Your task to perform on an android device: create a new album in the google photos Image 0: 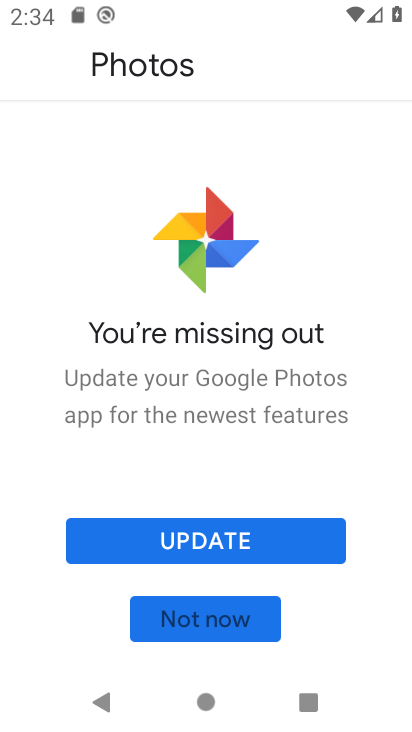
Step 0: press home button
Your task to perform on an android device: create a new album in the google photos Image 1: 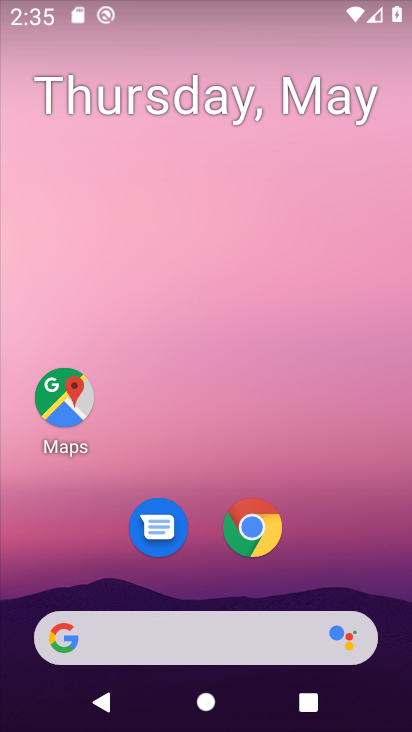
Step 1: drag from (404, 585) to (299, 9)
Your task to perform on an android device: create a new album in the google photos Image 2: 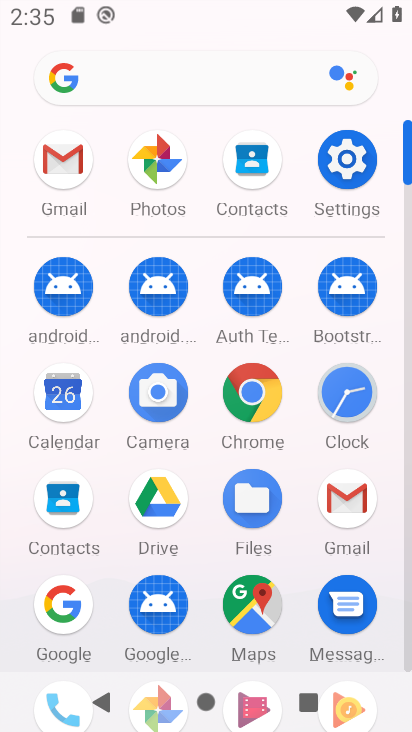
Step 2: click (409, 614)
Your task to perform on an android device: create a new album in the google photos Image 3: 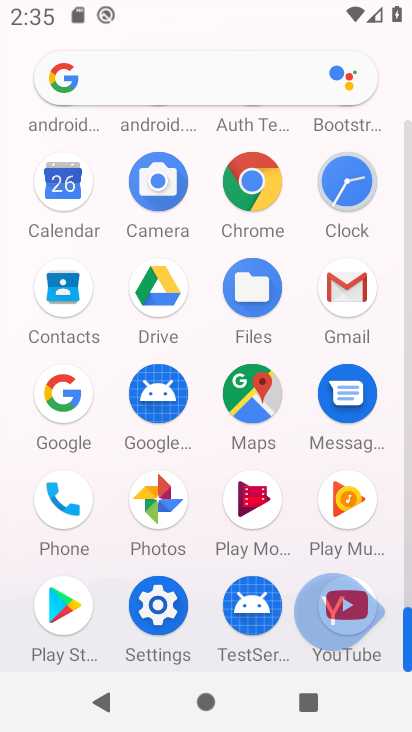
Step 3: click (409, 614)
Your task to perform on an android device: create a new album in the google photos Image 4: 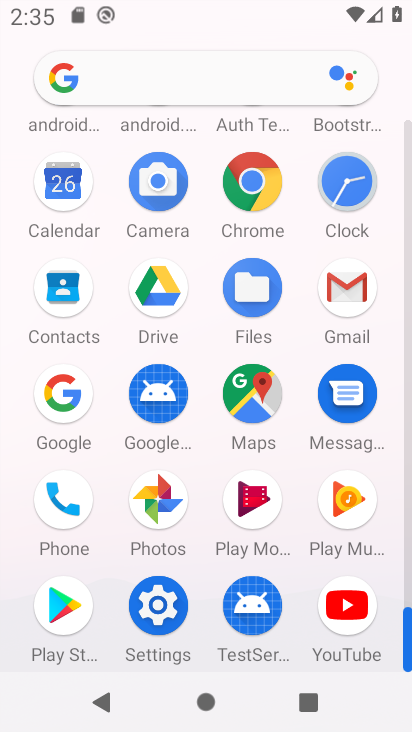
Step 4: click (409, 614)
Your task to perform on an android device: create a new album in the google photos Image 5: 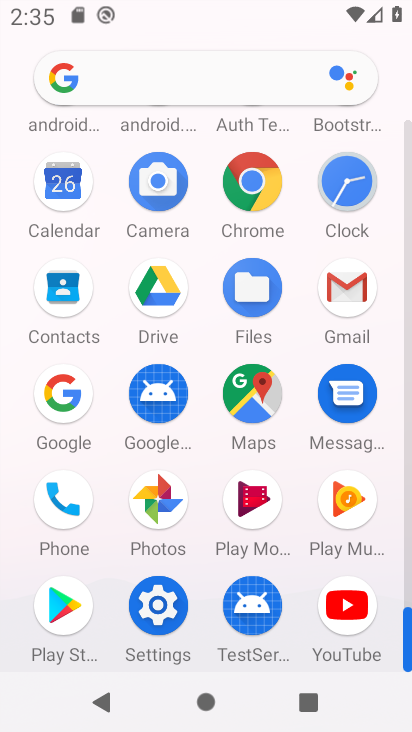
Step 5: click (155, 519)
Your task to perform on an android device: create a new album in the google photos Image 6: 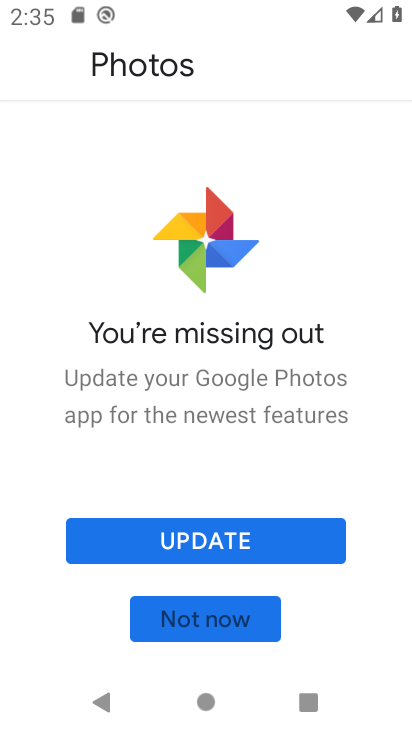
Step 6: click (155, 529)
Your task to perform on an android device: create a new album in the google photos Image 7: 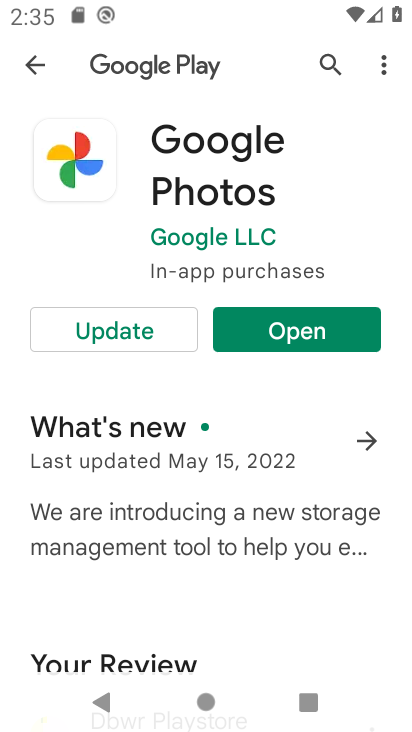
Step 7: click (129, 334)
Your task to perform on an android device: create a new album in the google photos Image 8: 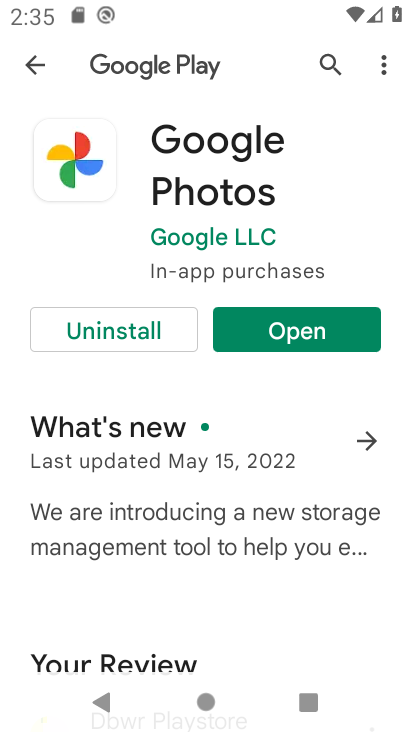
Step 8: click (330, 352)
Your task to perform on an android device: create a new album in the google photos Image 9: 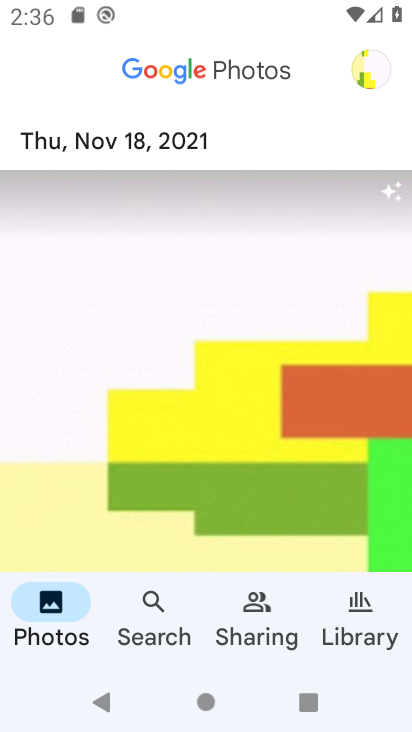
Step 9: click (345, 625)
Your task to perform on an android device: create a new album in the google photos Image 10: 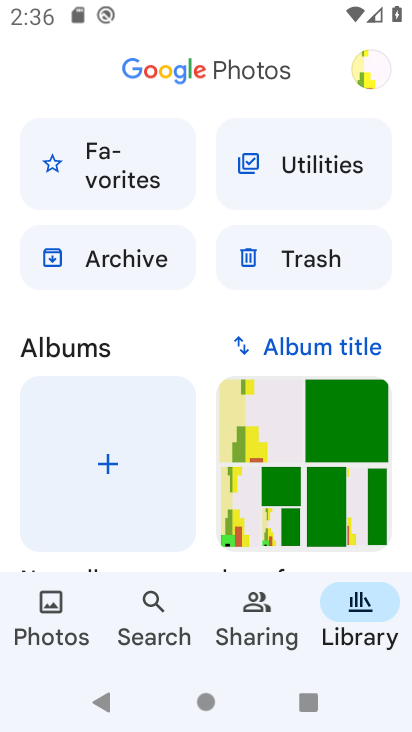
Step 10: click (50, 609)
Your task to perform on an android device: create a new album in the google photos Image 11: 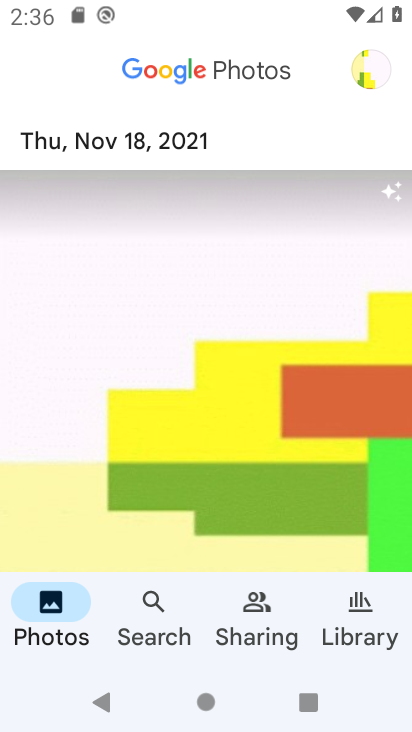
Step 11: click (136, 506)
Your task to perform on an android device: create a new album in the google photos Image 12: 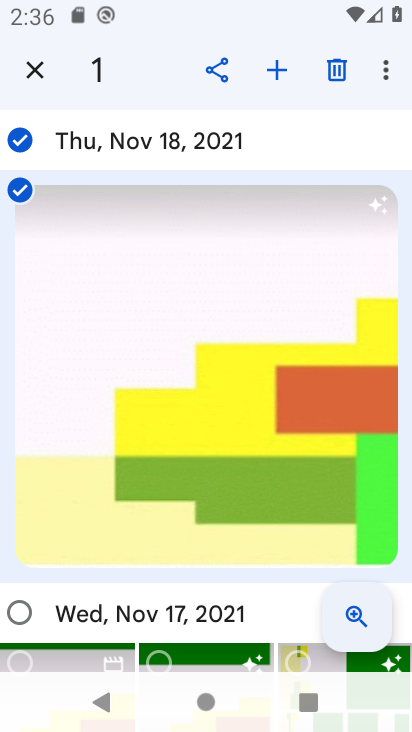
Step 12: drag from (185, 571) to (226, 109)
Your task to perform on an android device: create a new album in the google photos Image 13: 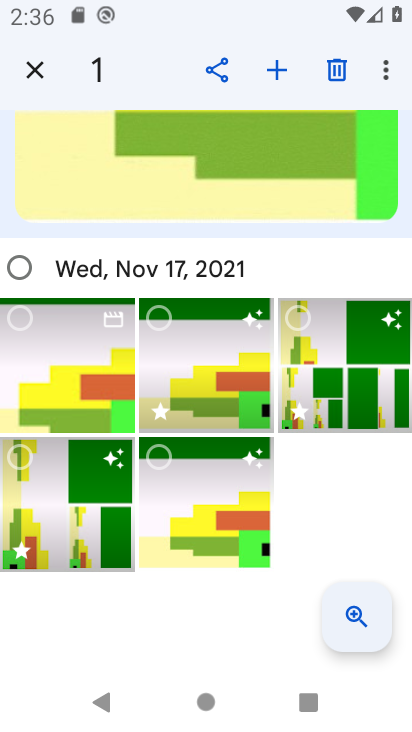
Step 13: click (227, 472)
Your task to perform on an android device: create a new album in the google photos Image 14: 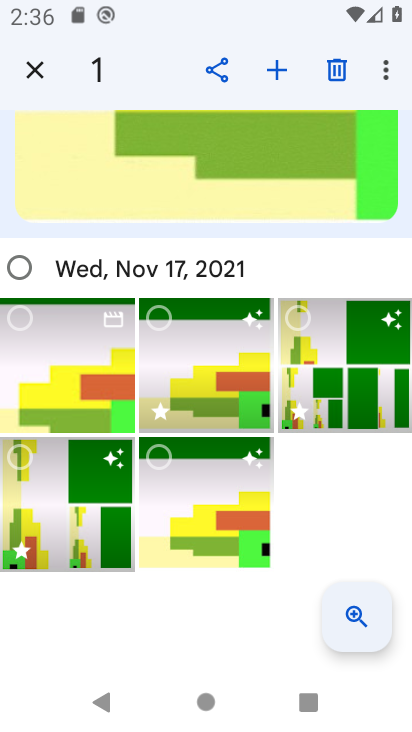
Step 14: drag from (53, 501) to (48, 614)
Your task to perform on an android device: create a new album in the google photos Image 15: 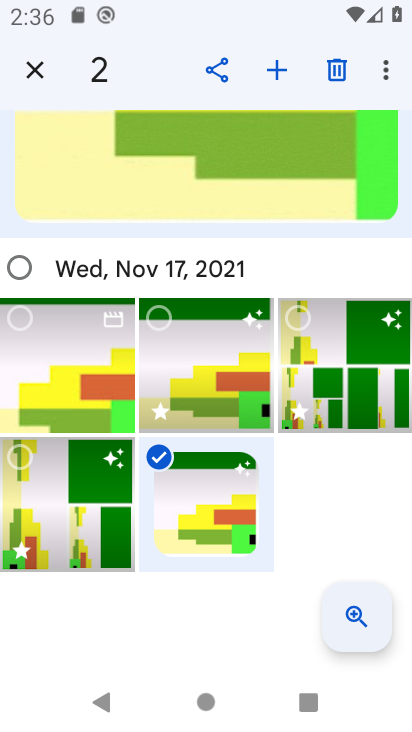
Step 15: click (274, 74)
Your task to perform on an android device: create a new album in the google photos Image 16: 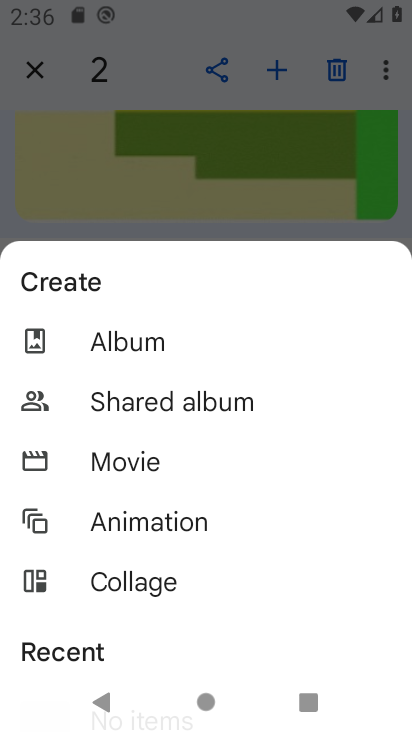
Step 16: click (122, 330)
Your task to perform on an android device: create a new album in the google photos Image 17: 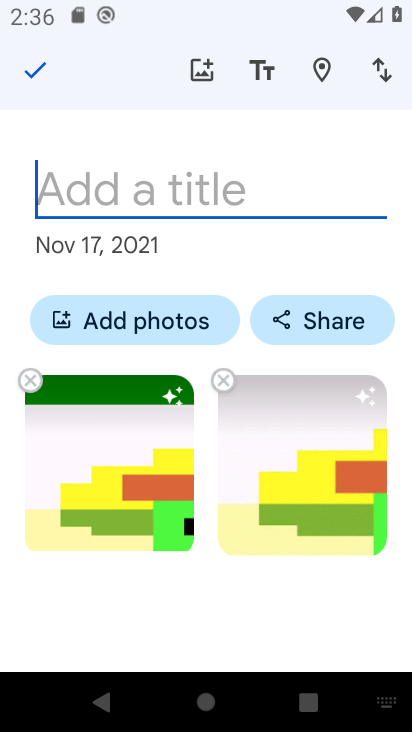
Step 17: type "fghjk"
Your task to perform on an android device: create a new album in the google photos Image 18: 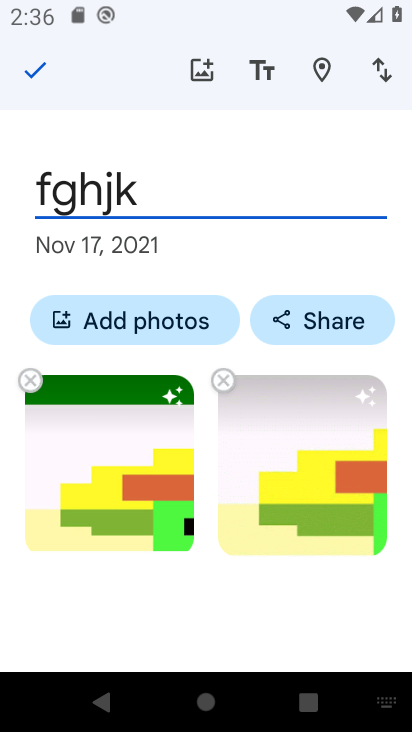
Step 18: click (24, 71)
Your task to perform on an android device: create a new album in the google photos Image 19: 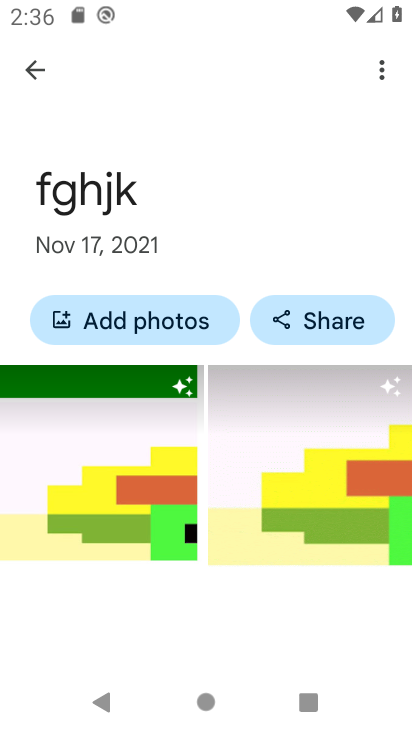
Step 19: task complete